Your task to perform on an android device: Search for sushi restaurants on Maps Image 0: 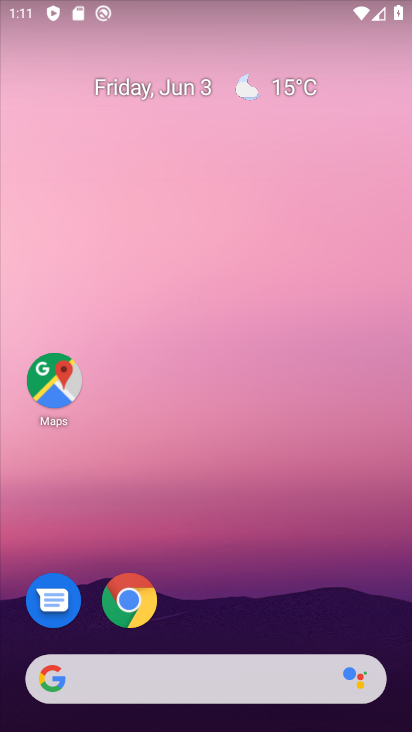
Step 0: click (49, 377)
Your task to perform on an android device: Search for sushi restaurants on Maps Image 1: 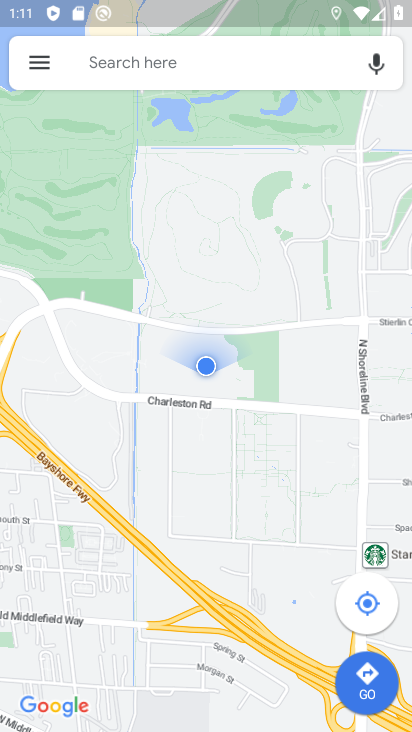
Step 1: click (153, 56)
Your task to perform on an android device: Search for sushi restaurants on Maps Image 2: 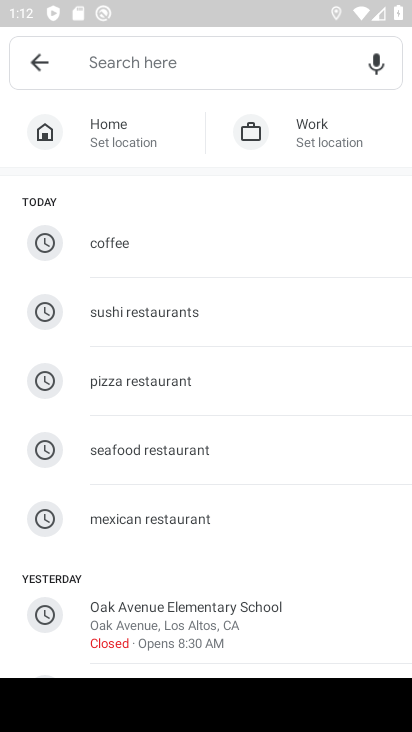
Step 2: type "sushi restaurants "
Your task to perform on an android device: Search for sushi restaurants on Maps Image 3: 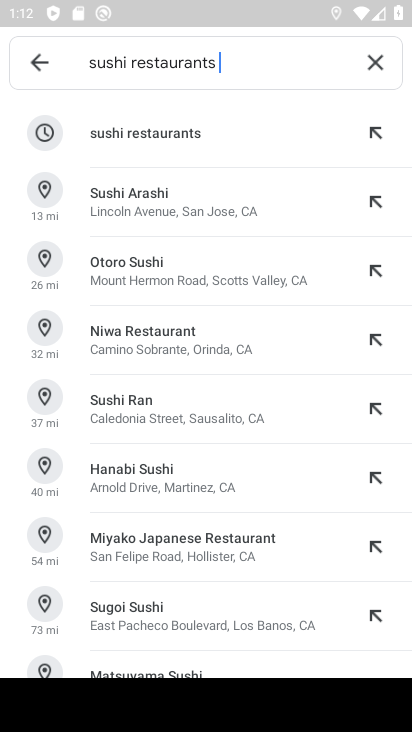
Step 3: click (245, 138)
Your task to perform on an android device: Search for sushi restaurants on Maps Image 4: 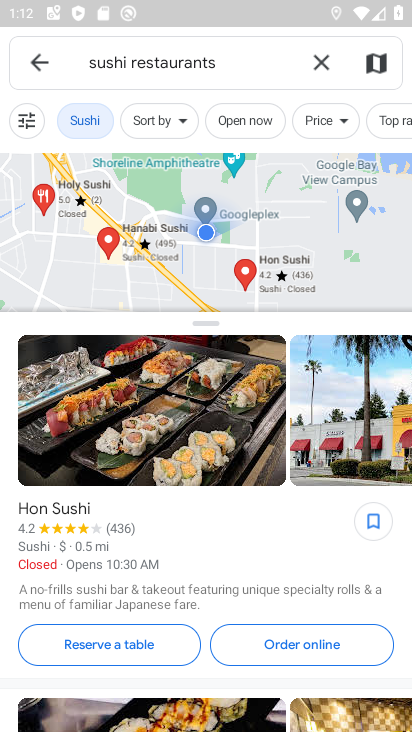
Step 4: task complete